Your task to perform on an android device: What's the weather like in Mexico City? Image 0: 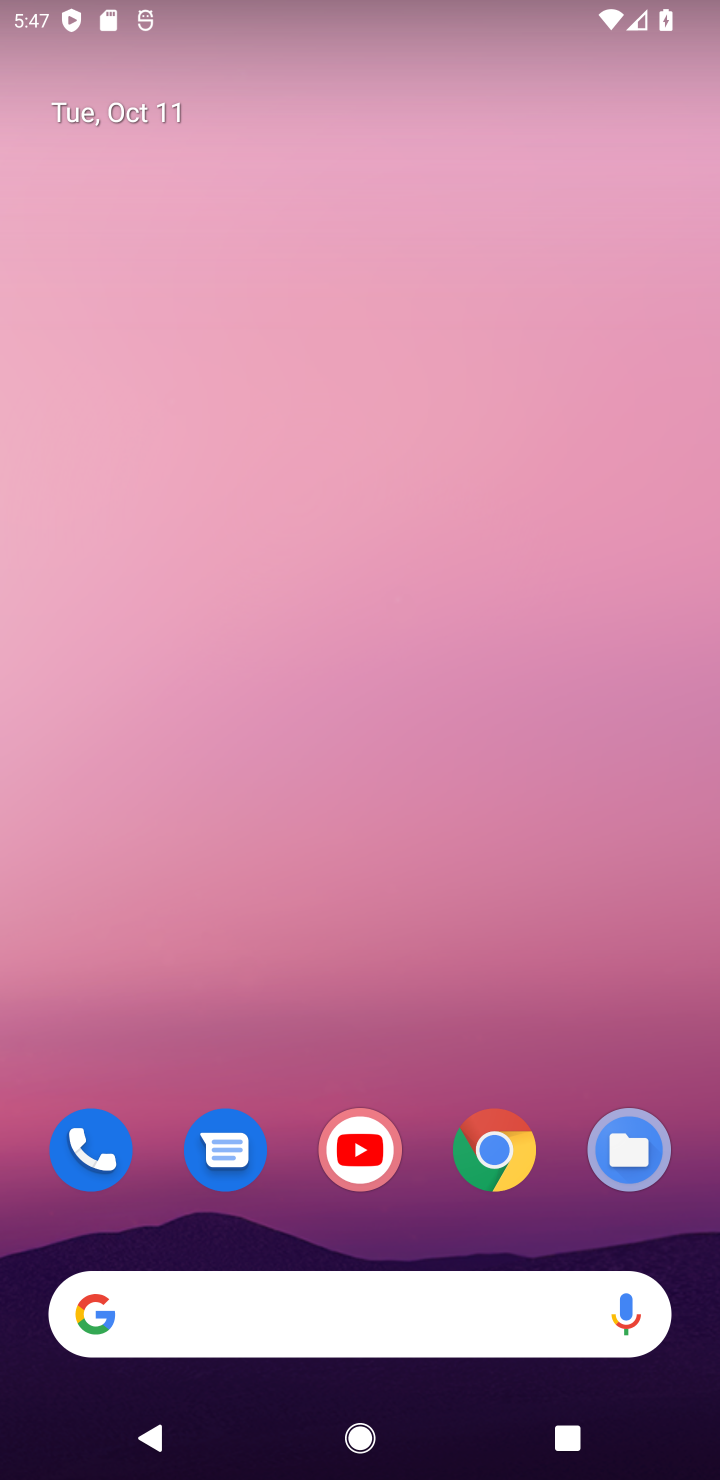
Step 0: click (501, 1161)
Your task to perform on an android device: What's the weather like in Mexico City? Image 1: 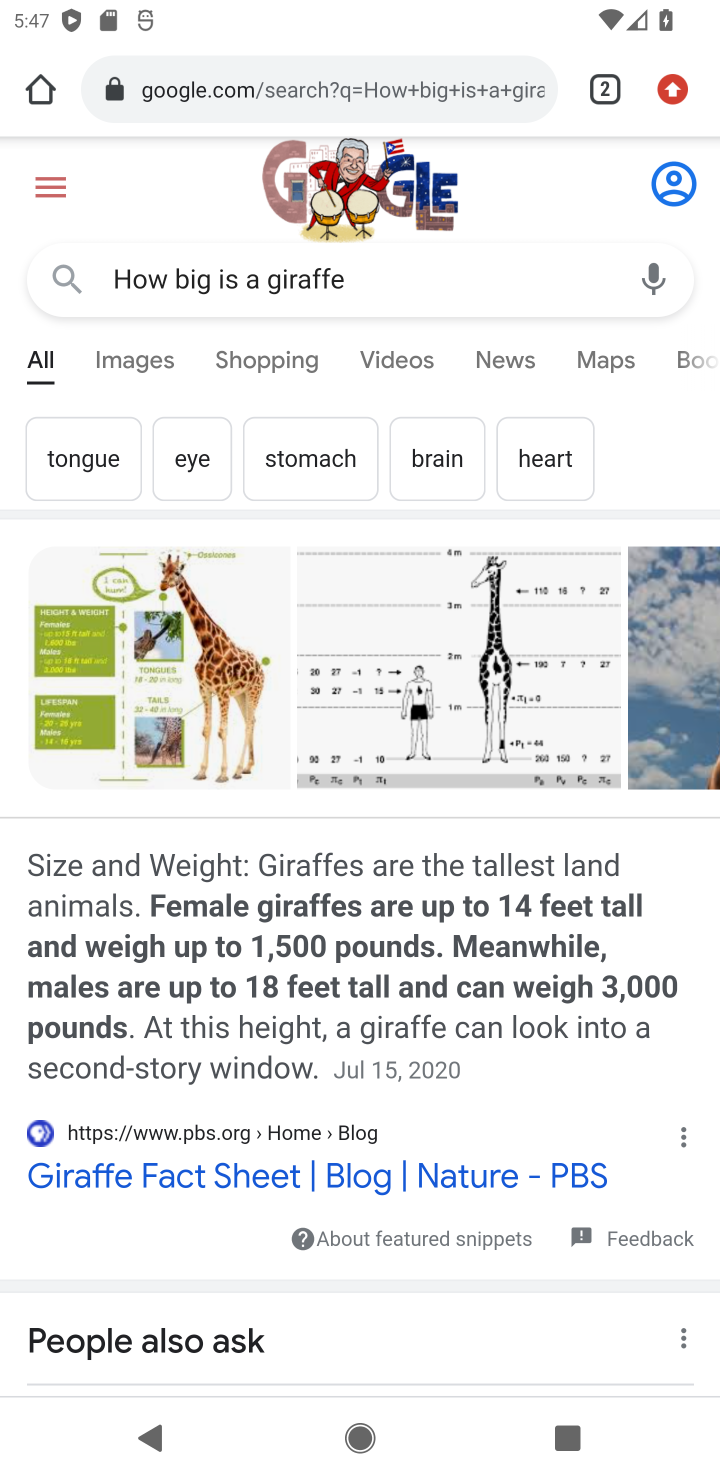
Step 1: click (414, 86)
Your task to perform on an android device: What's the weather like in Mexico City? Image 2: 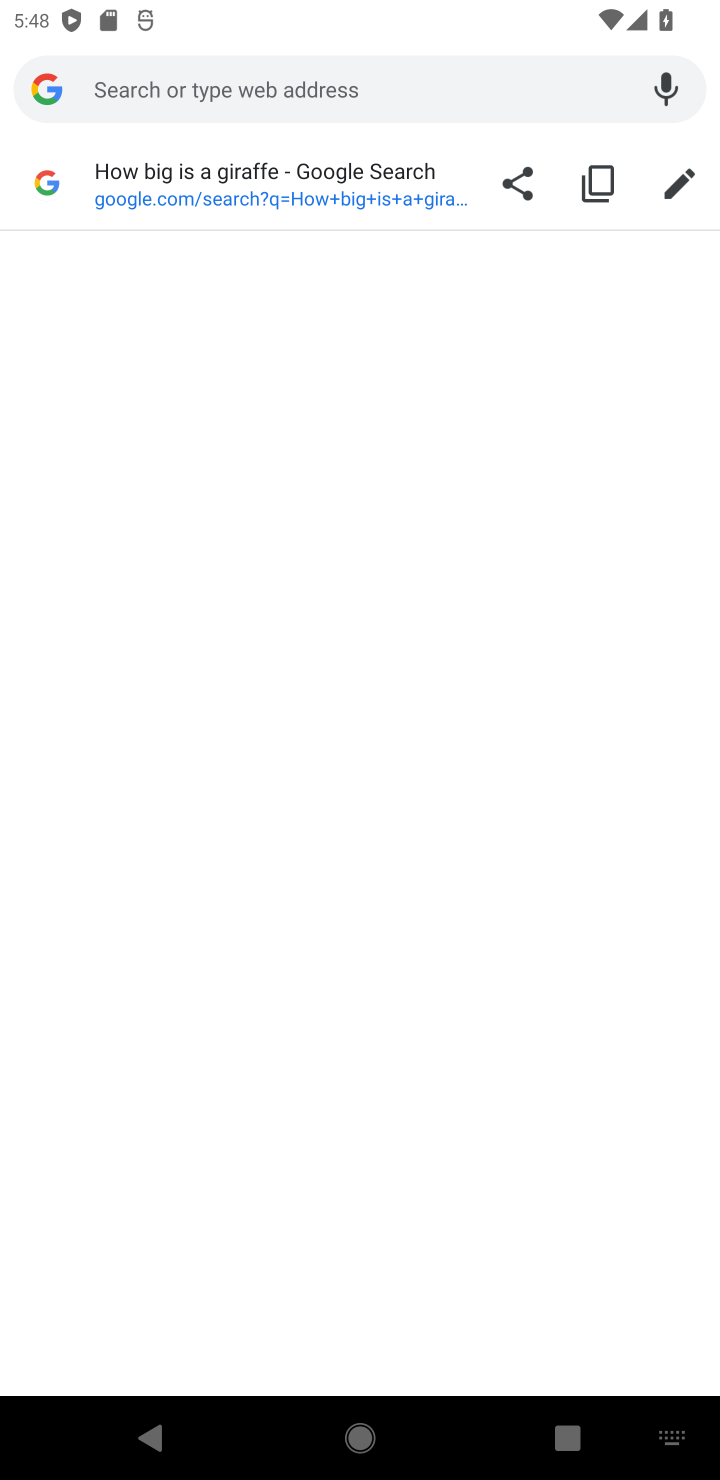
Step 2: click (173, 102)
Your task to perform on an android device: What's the weather like in Mexico City? Image 3: 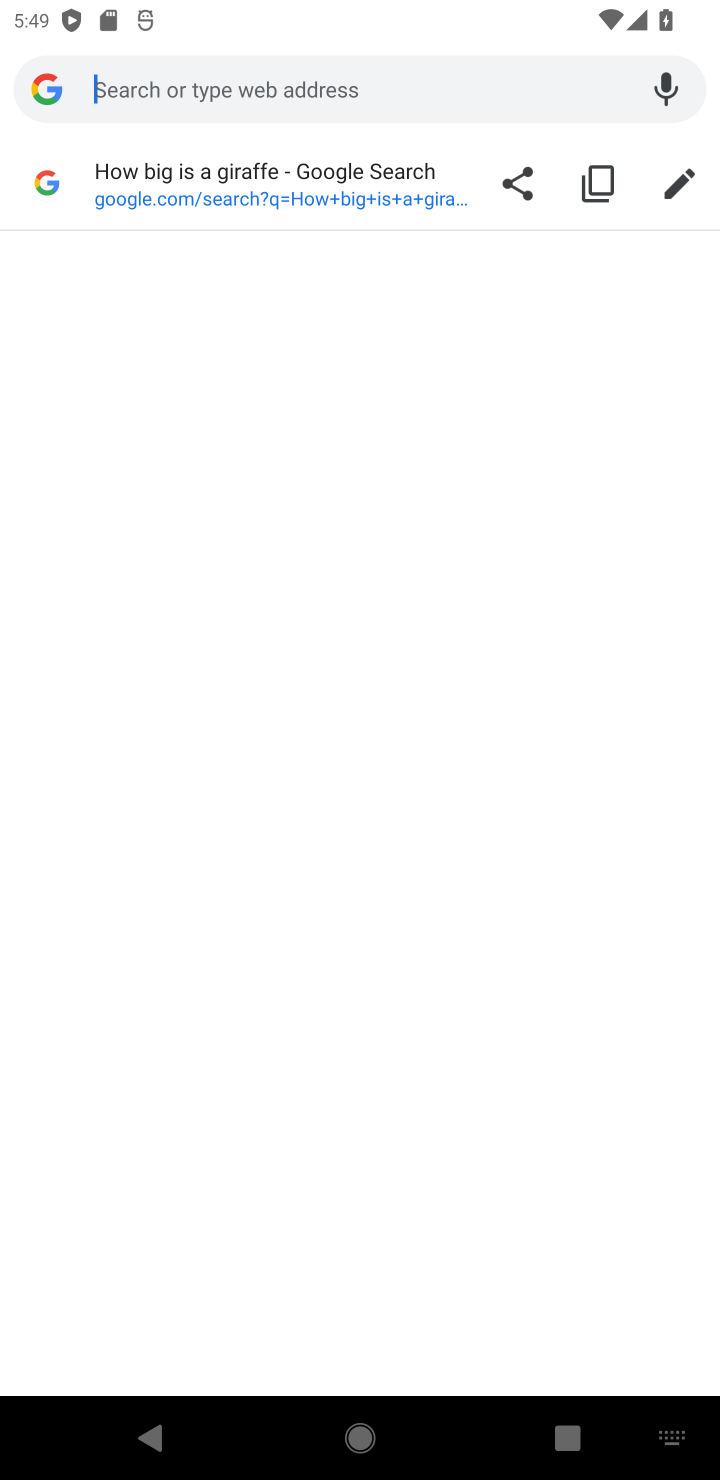
Step 3: type "weather in mexico"
Your task to perform on an android device: What's the weather like in Mexico City? Image 4: 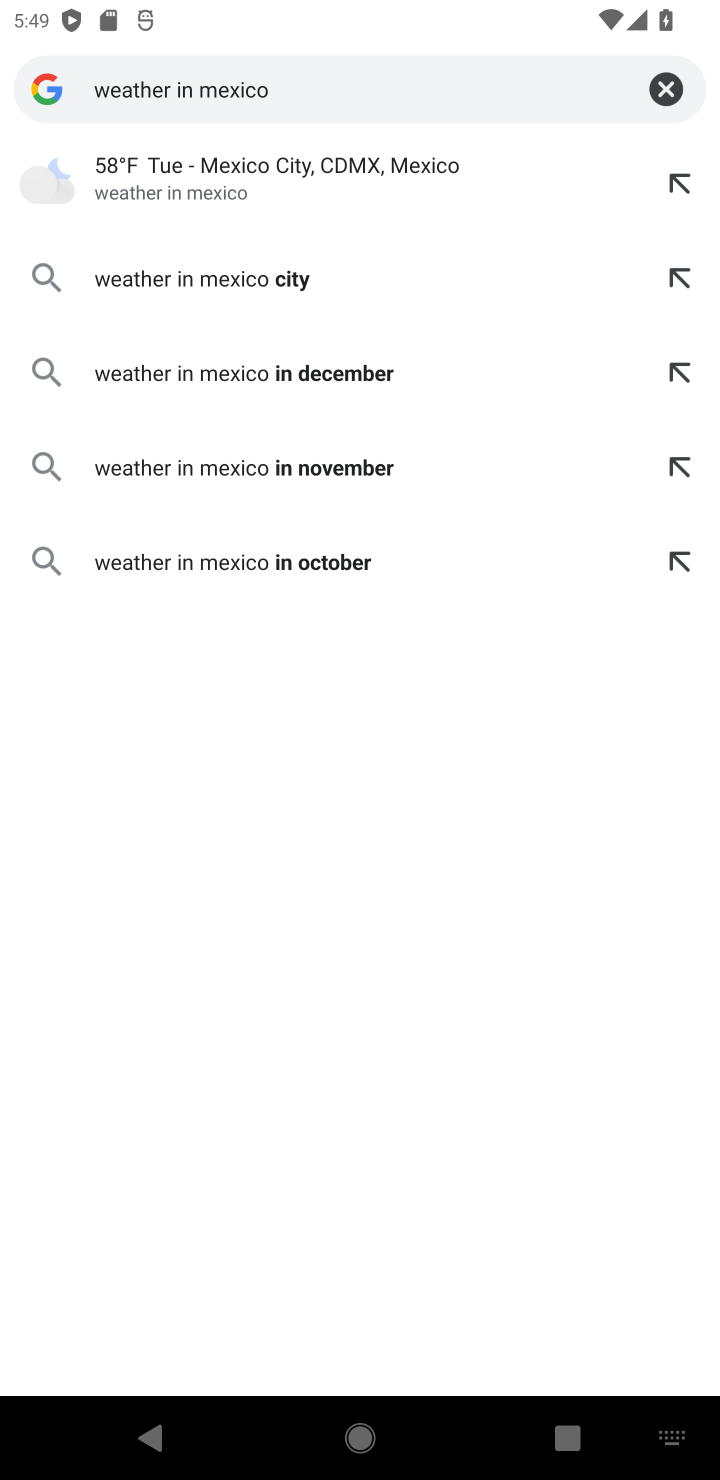
Step 4: click (190, 190)
Your task to perform on an android device: What's the weather like in Mexico City? Image 5: 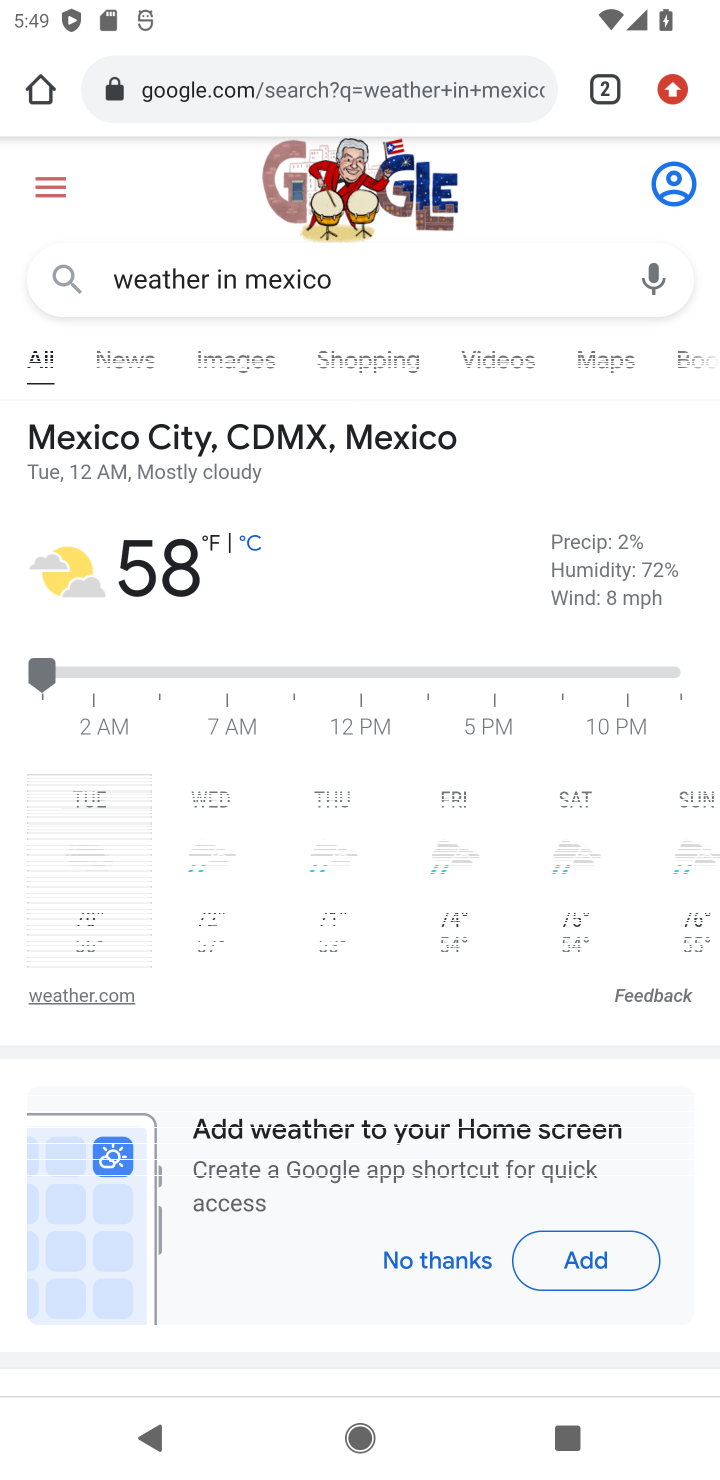
Step 5: task complete